Your task to perform on an android device: open a bookmark in the chrome app Image 0: 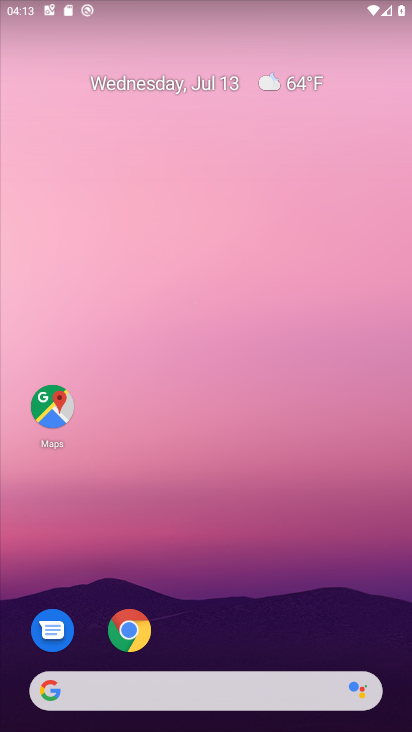
Step 0: click (128, 626)
Your task to perform on an android device: open a bookmark in the chrome app Image 1: 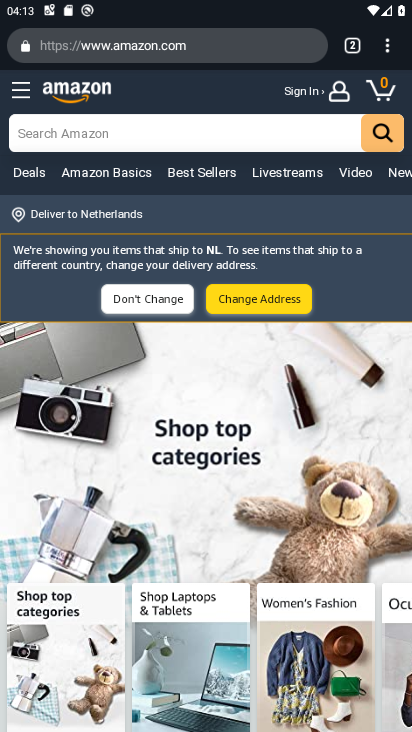
Step 1: click (399, 53)
Your task to perform on an android device: open a bookmark in the chrome app Image 2: 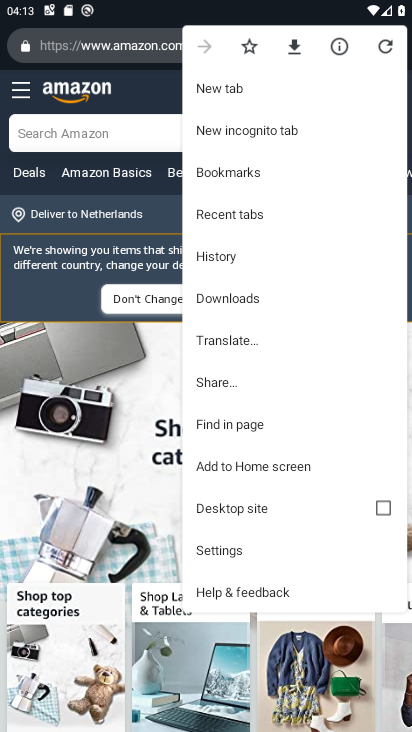
Step 2: click (245, 173)
Your task to perform on an android device: open a bookmark in the chrome app Image 3: 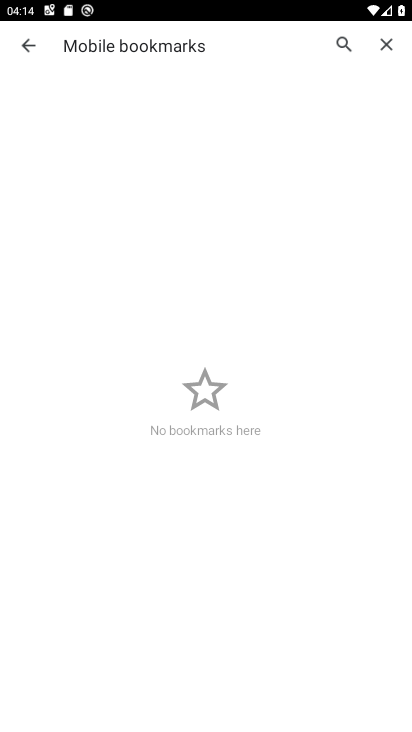
Step 3: task complete